Your task to perform on an android device: What is the news today? Image 0: 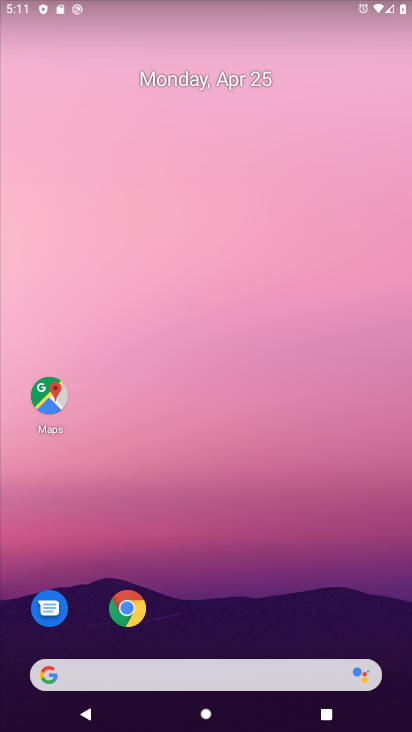
Step 0: drag from (250, 470) to (254, 63)
Your task to perform on an android device: What is the news today? Image 1: 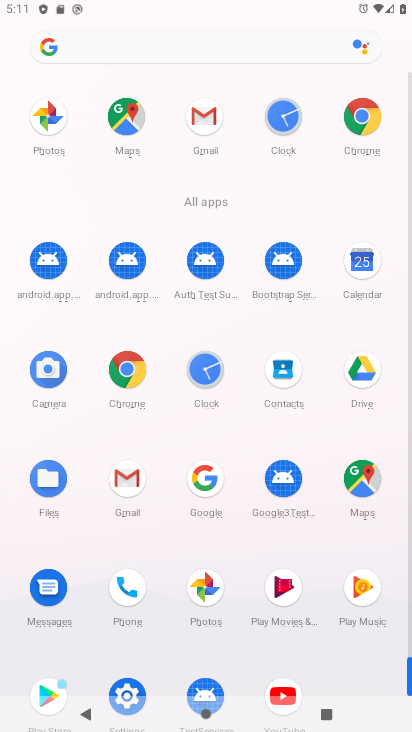
Step 1: click (153, 46)
Your task to perform on an android device: What is the news today? Image 2: 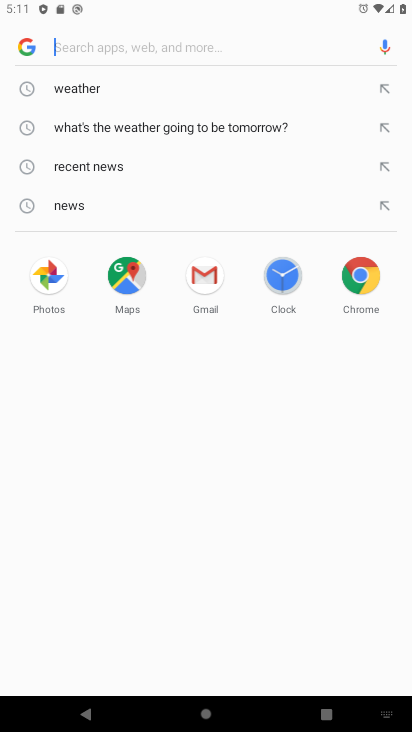
Step 2: type "What is the news today?"
Your task to perform on an android device: What is the news today? Image 3: 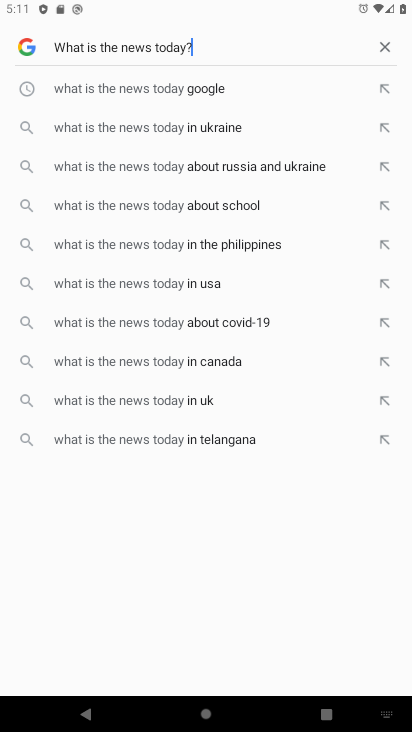
Step 3: click (167, 86)
Your task to perform on an android device: What is the news today? Image 4: 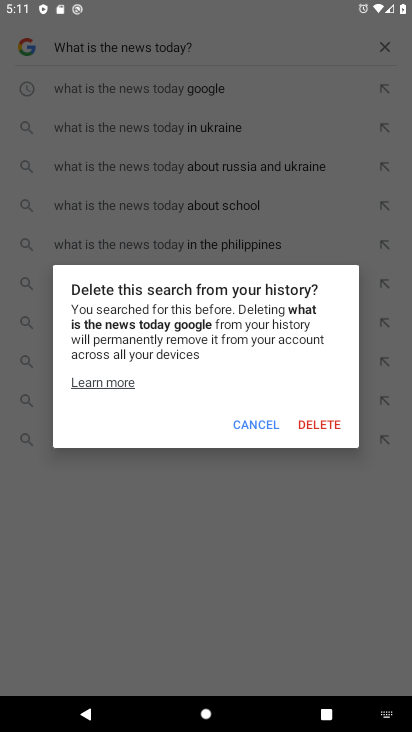
Step 4: click (256, 423)
Your task to perform on an android device: What is the news today? Image 5: 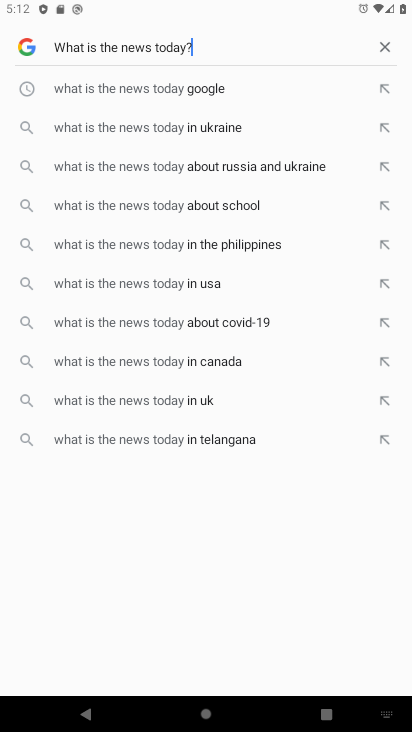
Step 5: click (198, 87)
Your task to perform on an android device: What is the news today? Image 6: 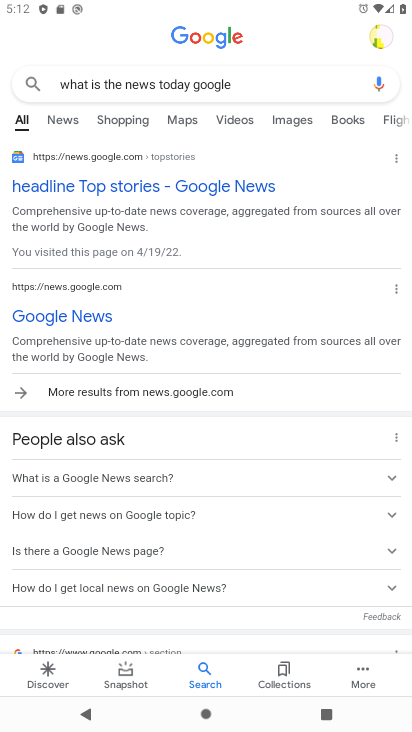
Step 6: click (66, 120)
Your task to perform on an android device: What is the news today? Image 7: 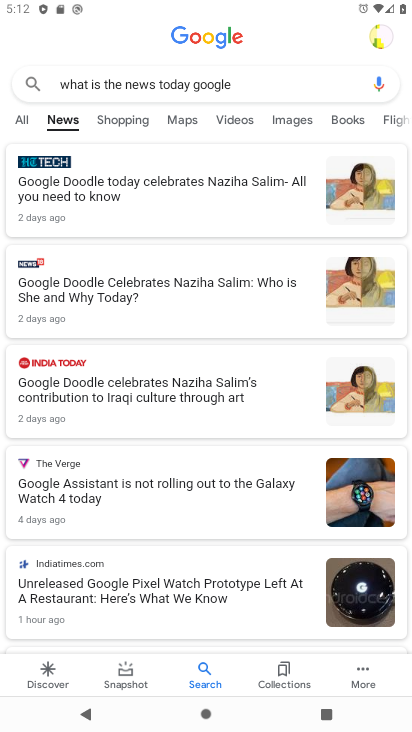
Step 7: task complete